Your task to perform on an android device: Who is the prime minister of the United Kingdom? Image 0: 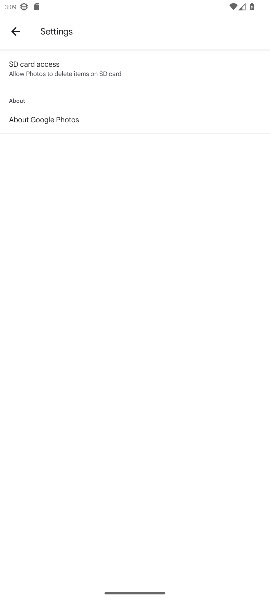
Step 0: press home button
Your task to perform on an android device: Who is the prime minister of the United Kingdom? Image 1: 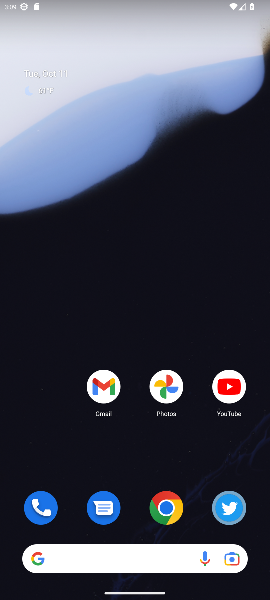
Step 1: click (171, 509)
Your task to perform on an android device: Who is the prime minister of the United Kingdom? Image 2: 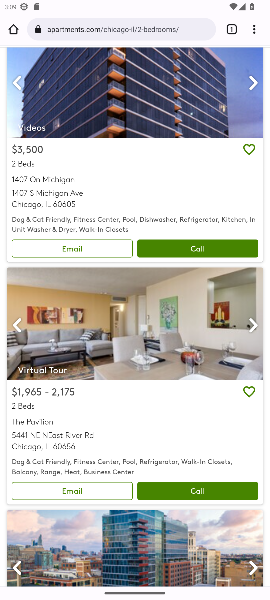
Step 2: click (189, 28)
Your task to perform on an android device: Who is the prime minister of the United Kingdom? Image 3: 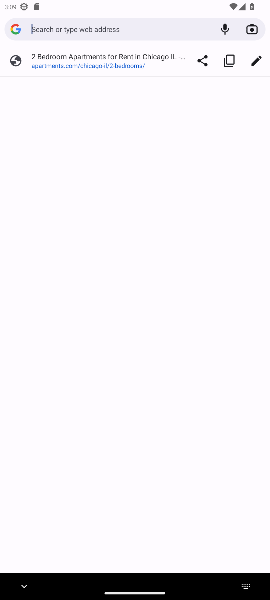
Step 3: type "prime minister of the United Kingdom"
Your task to perform on an android device: Who is the prime minister of the United Kingdom? Image 4: 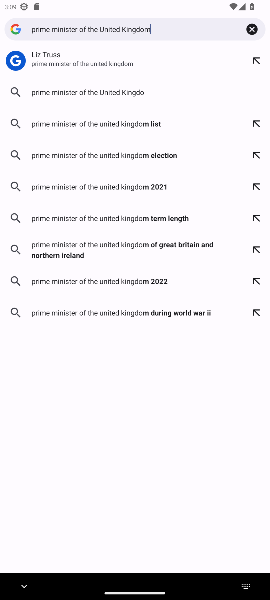
Step 4: type ""
Your task to perform on an android device: Who is the prime minister of the United Kingdom? Image 5: 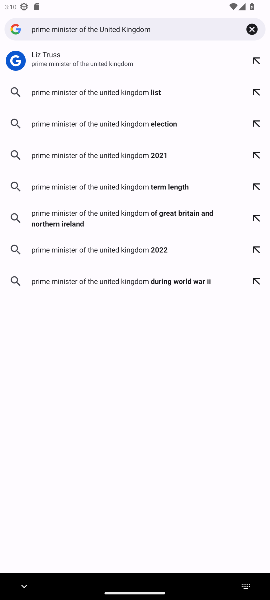
Step 5: press enter
Your task to perform on an android device: Who is the prime minister of the United Kingdom? Image 6: 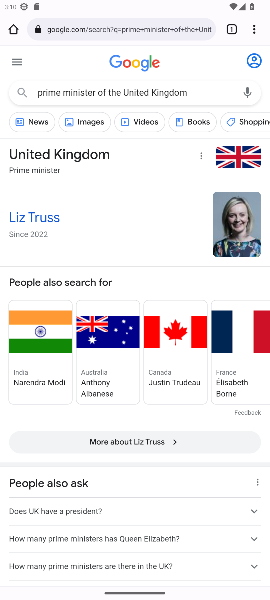
Step 6: task complete